Your task to perform on an android device: Open settings Image 0: 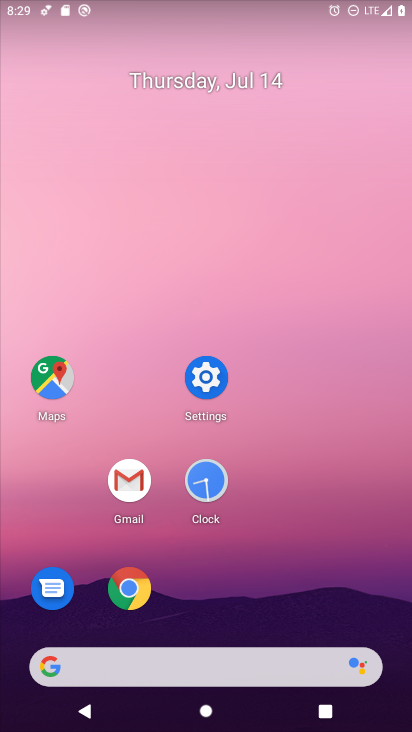
Step 0: click (215, 384)
Your task to perform on an android device: Open settings Image 1: 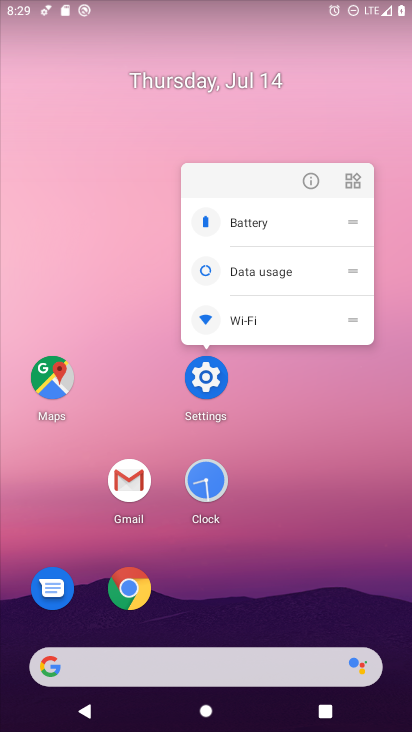
Step 1: click (200, 375)
Your task to perform on an android device: Open settings Image 2: 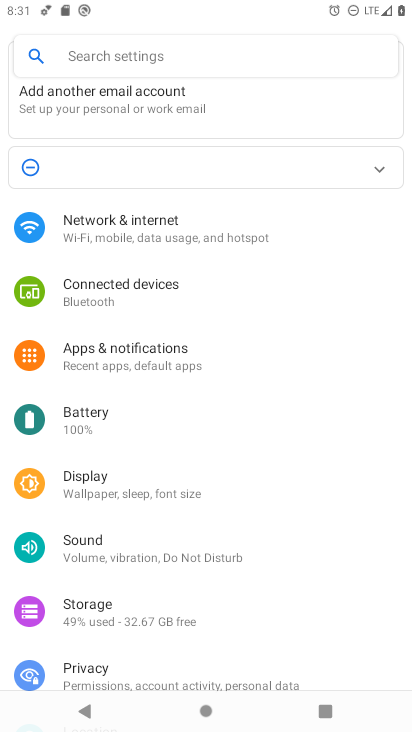
Step 2: task complete